Your task to perform on an android device: Google the capital of Colombia Image 0: 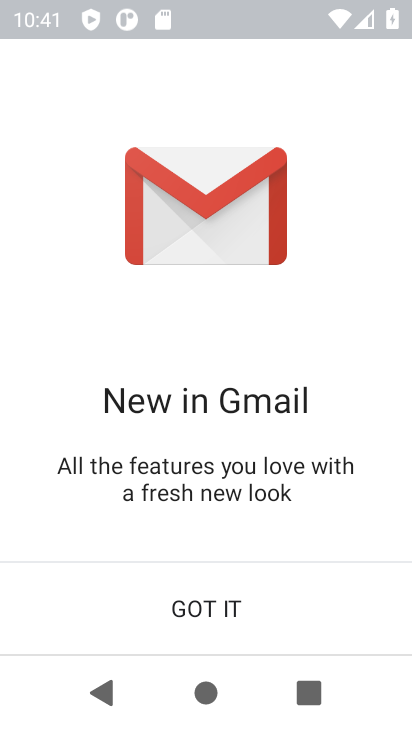
Step 0: press home button
Your task to perform on an android device: Google the capital of Colombia Image 1: 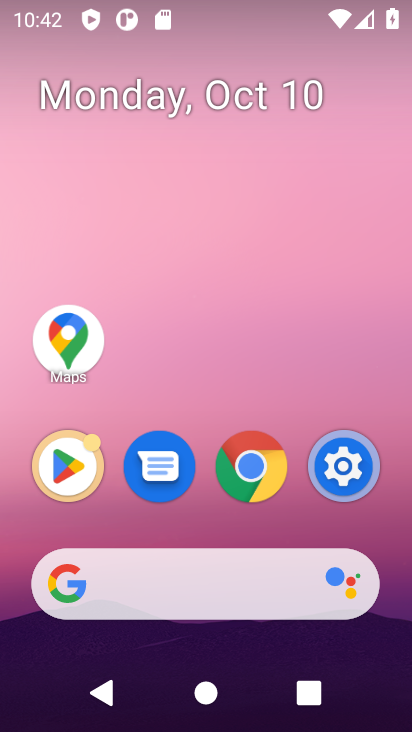
Step 1: click (63, 582)
Your task to perform on an android device: Google the capital of Colombia Image 2: 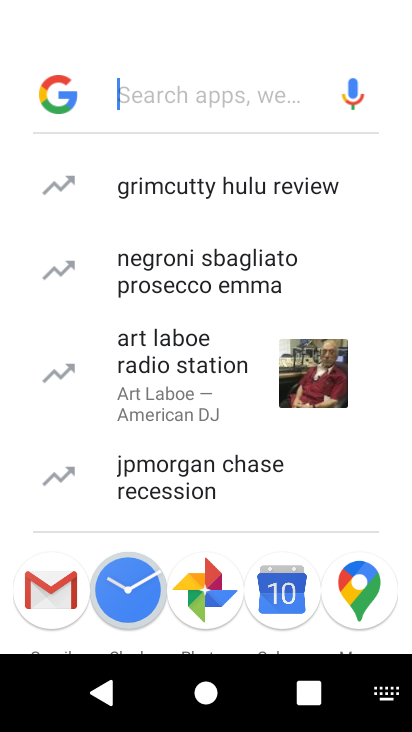
Step 2: type " capital of Colombia"
Your task to perform on an android device: Google the capital of Colombia Image 3: 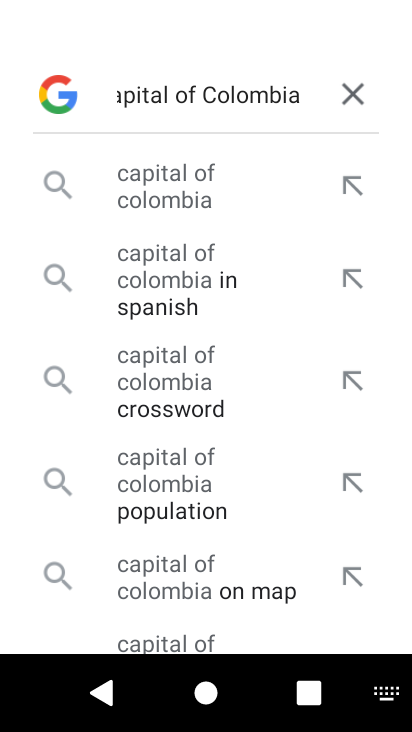
Step 3: press enter
Your task to perform on an android device: Google the capital of Colombia Image 4: 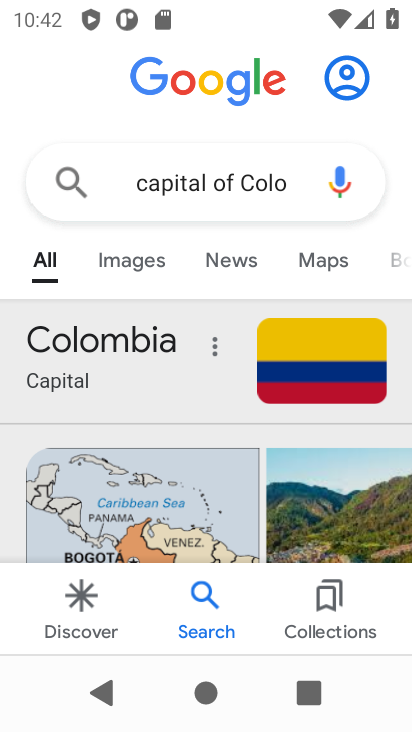
Step 4: task complete